Your task to perform on an android device: see creations saved in the google photos Image 0: 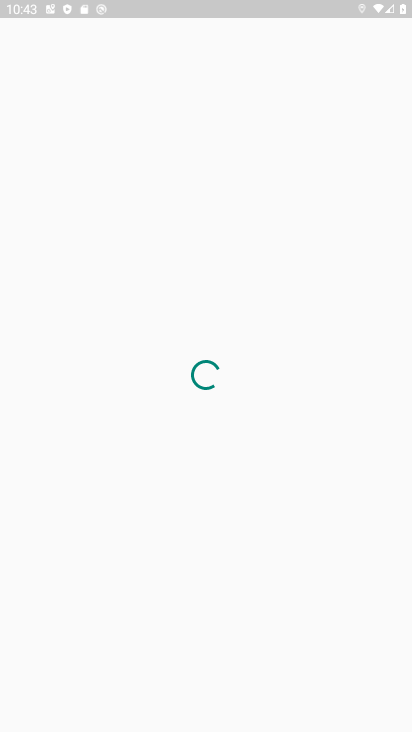
Step 0: press home button
Your task to perform on an android device: see creations saved in the google photos Image 1: 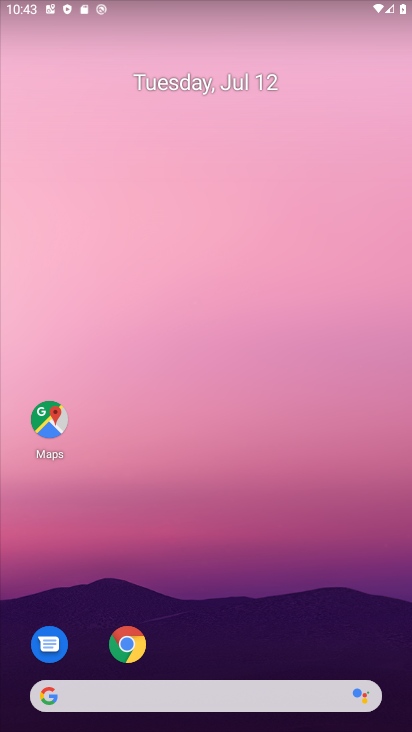
Step 1: drag from (200, 669) to (217, 74)
Your task to perform on an android device: see creations saved in the google photos Image 2: 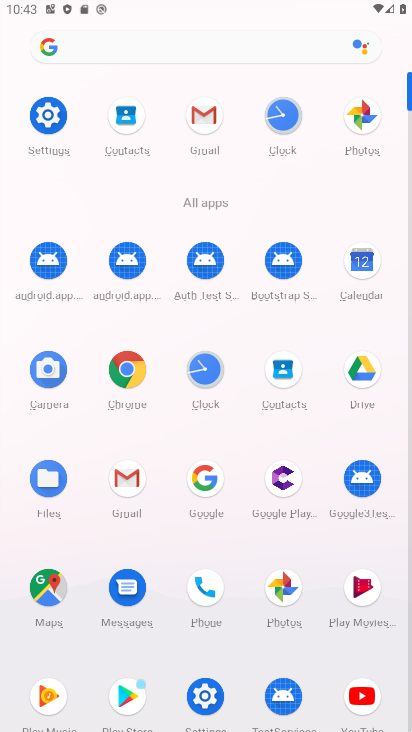
Step 2: click (280, 583)
Your task to perform on an android device: see creations saved in the google photos Image 3: 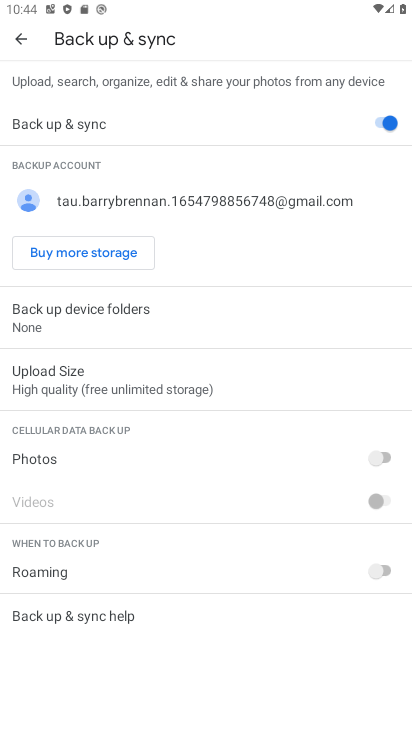
Step 3: press home button
Your task to perform on an android device: see creations saved in the google photos Image 4: 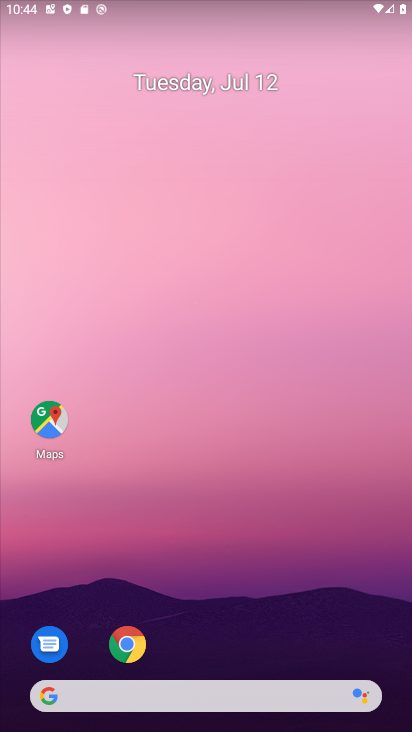
Step 4: drag from (198, 646) to (226, 4)
Your task to perform on an android device: see creations saved in the google photos Image 5: 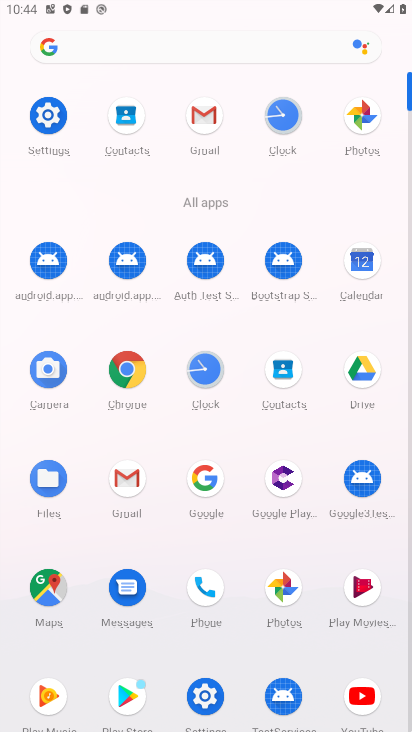
Step 5: click (361, 113)
Your task to perform on an android device: see creations saved in the google photos Image 6: 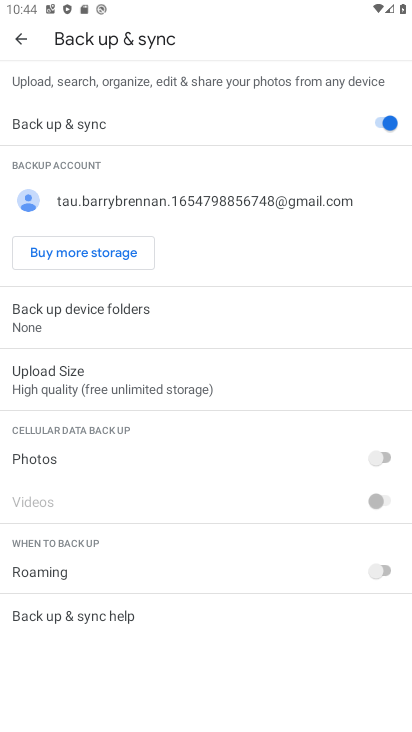
Step 6: click (27, 38)
Your task to perform on an android device: see creations saved in the google photos Image 7: 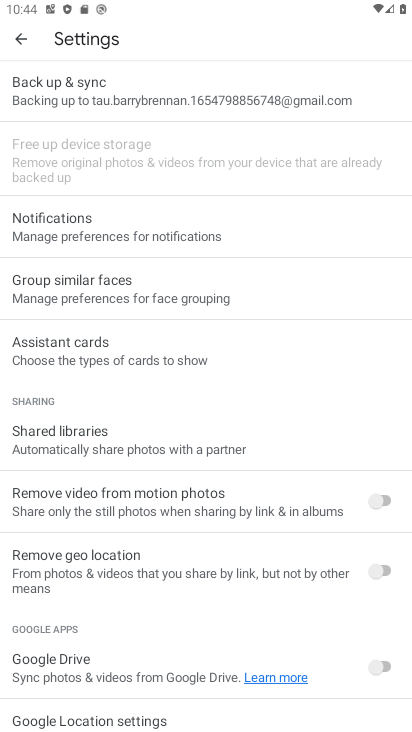
Step 7: click (11, 39)
Your task to perform on an android device: see creations saved in the google photos Image 8: 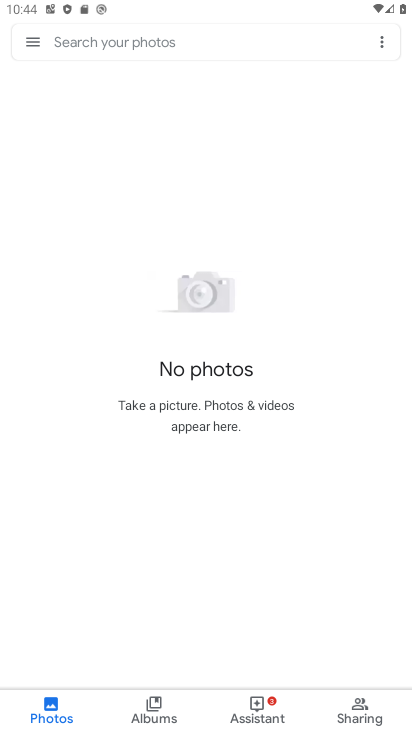
Step 8: click (94, 35)
Your task to perform on an android device: see creations saved in the google photos Image 9: 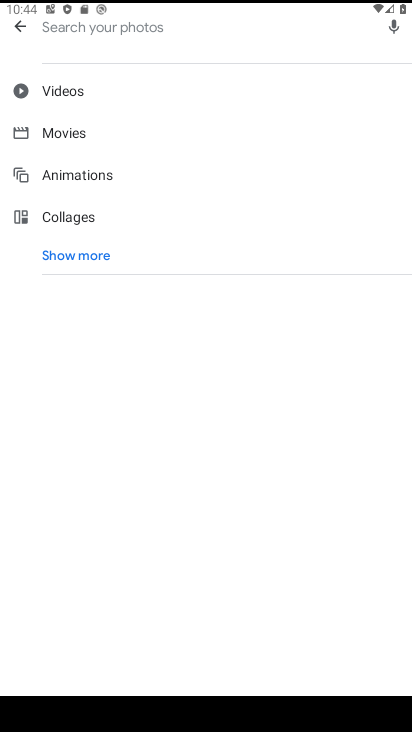
Step 9: click (78, 255)
Your task to perform on an android device: see creations saved in the google photos Image 10: 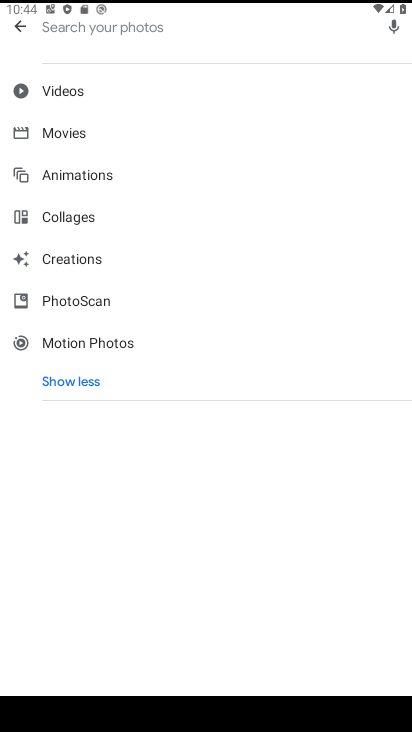
Step 10: click (88, 253)
Your task to perform on an android device: see creations saved in the google photos Image 11: 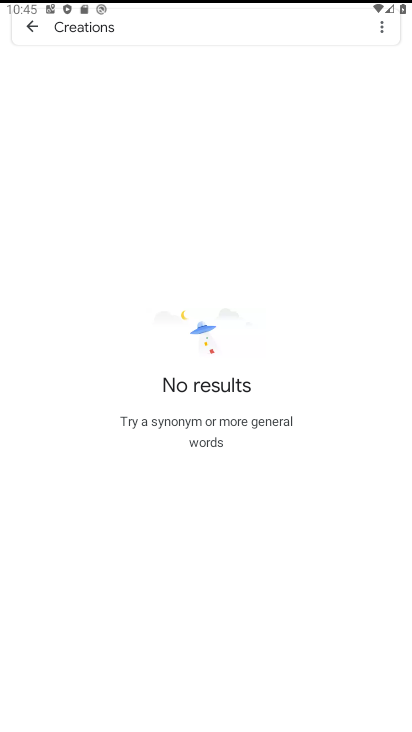
Step 11: task complete